Your task to perform on an android device: toggle notifications settings in the gmail app Image 0: 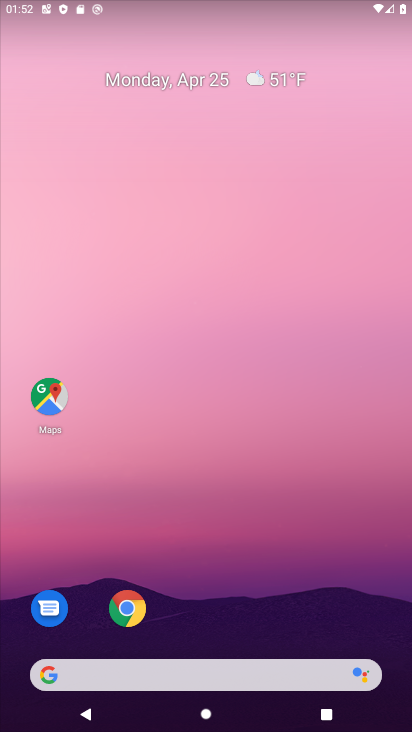
Step 0: drag from (190, 401) to (253, 28)
Your task to perform on an android device: toggle notifications settings in the gmail app Image 1: 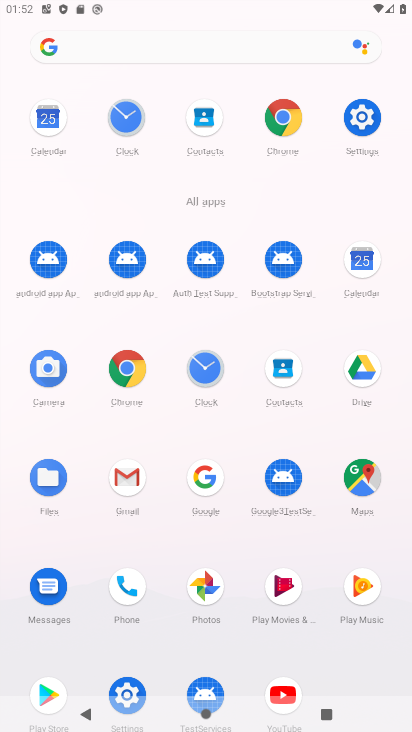
Step 1: click (120, 473)
Your task to perform on an android device: toggle notifications settings in the gmail app Image 2: 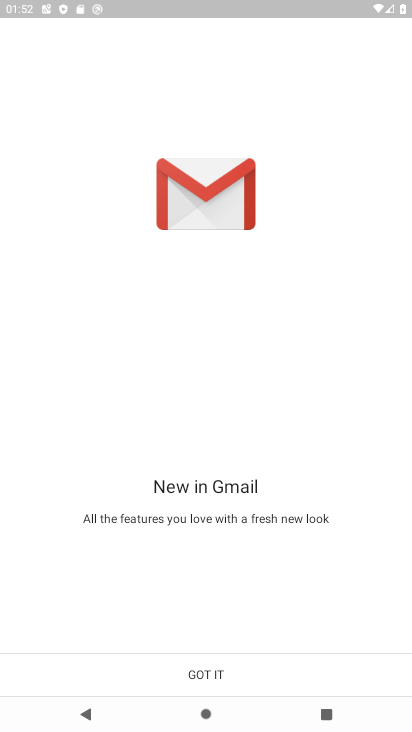
Step 2: click (217, 678)
Your task to perform on an android device: toggle notifications settings in the gmail app Image 3: 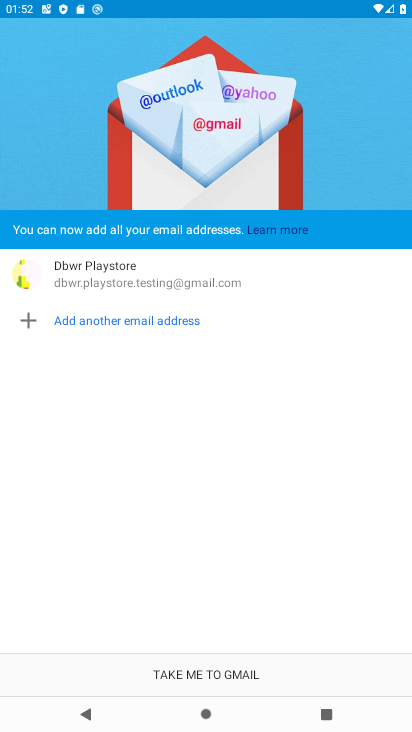
Step 3: click (217, 678)
Your task to perform on an android device: toggle notifications settings in the gmail app Image 4: 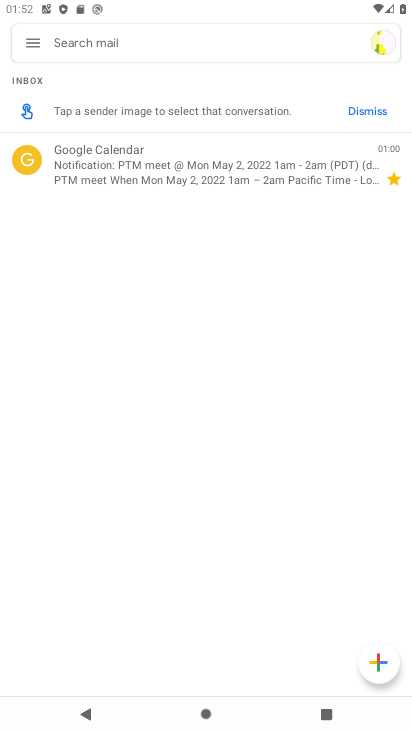
Step 4: click (25, 51)
Your task to perform on an android device: toggle notifications settings in the gmail app Image 5: 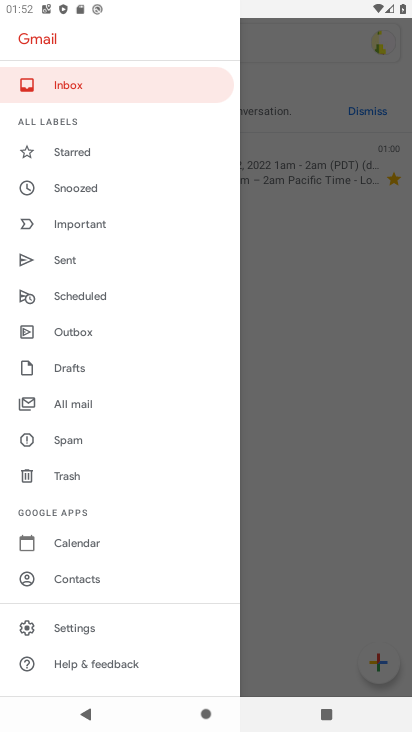
Step 5: click (94, 624)
Your task to perform on an android device: toggle notifications settings in the gmail app Image 6: 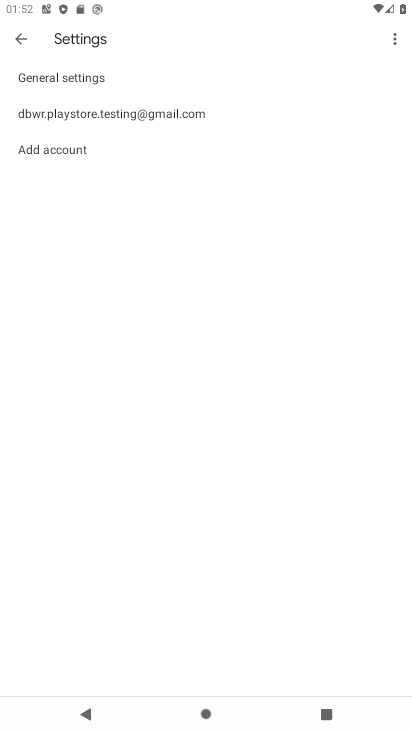
Step 6: click (100, 84)
Your task to perform on an android device: toggle notifications settings in the gmail app Image 7: 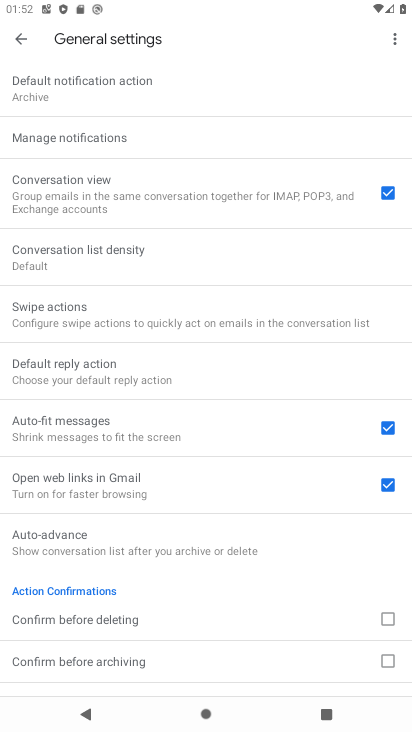
Step 7: click (116, 137)
Your task to perform on an android device: toggle notifications settings in the gmail app Image 8: 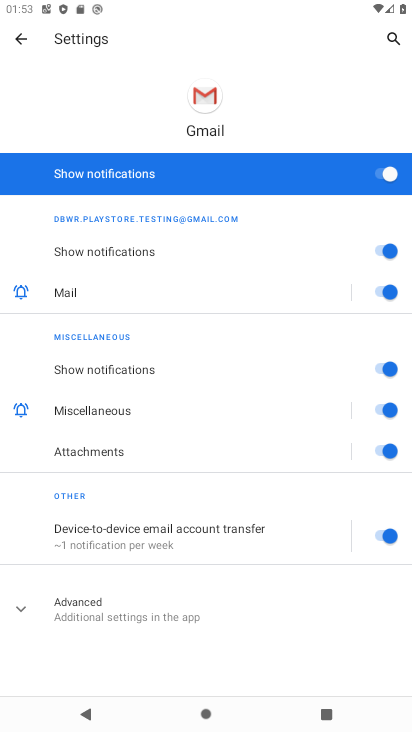
Step 8: click (387, 170)
Your task to perform on an android device: toggle notifications settings in the gmail app Image 9: 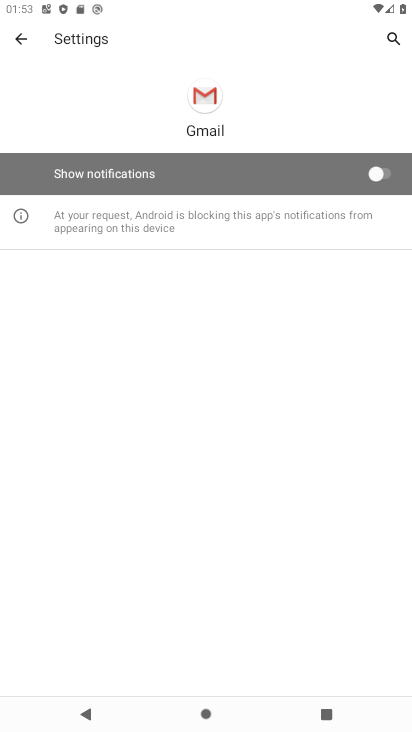
Step 9: task complete